Your task to perform on an android device: check android version Image 0: 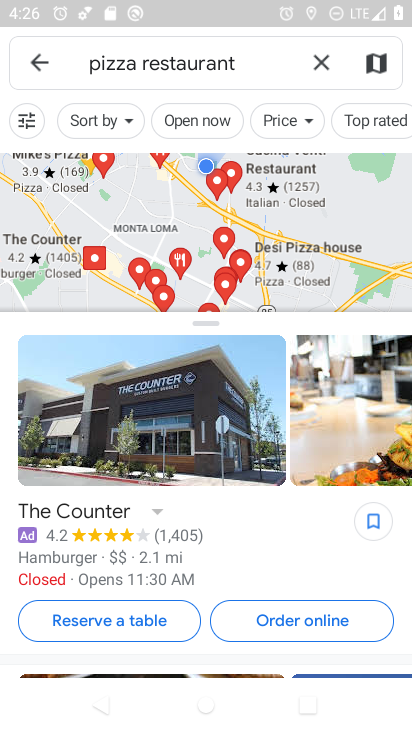
Step 0: press home button
Your task to perform on an android device: check android version Image 1: 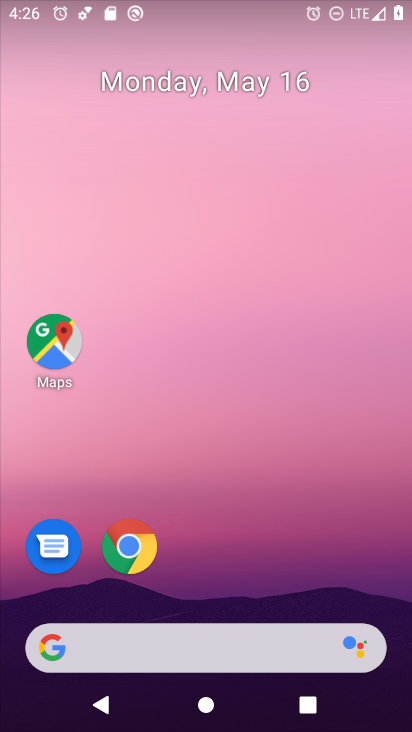
Step 1: drag from (334, 593) to (338, 104)
Your task to perform on an android device: check android version Image 2: 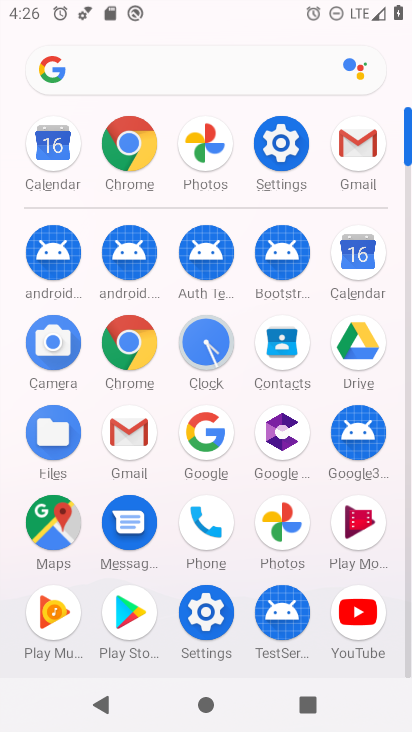
Step 2: click (196, 622)
Your task to perform on an android device: check android version Image 3: 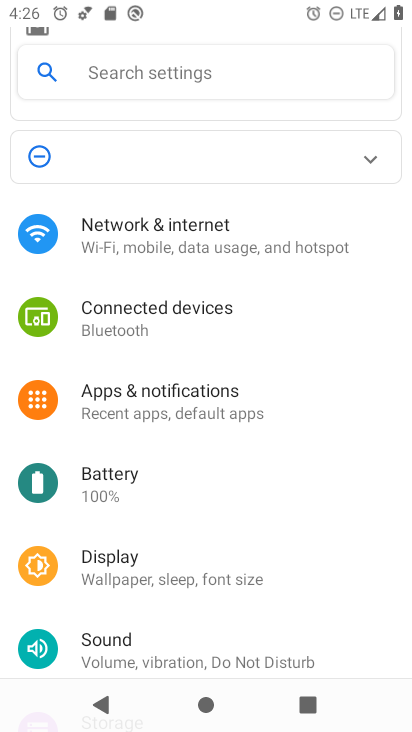
Step 3: drag from (328, 549) to (345, 362)
Your task to perform on an android device: check android version Image 4: 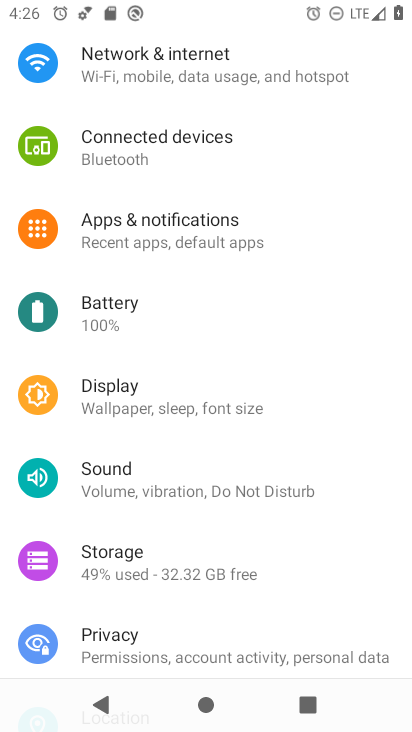
Step 4: drag from (324, 594) to (325, 417)
Your task to perform on an android device: check android version Image 5: 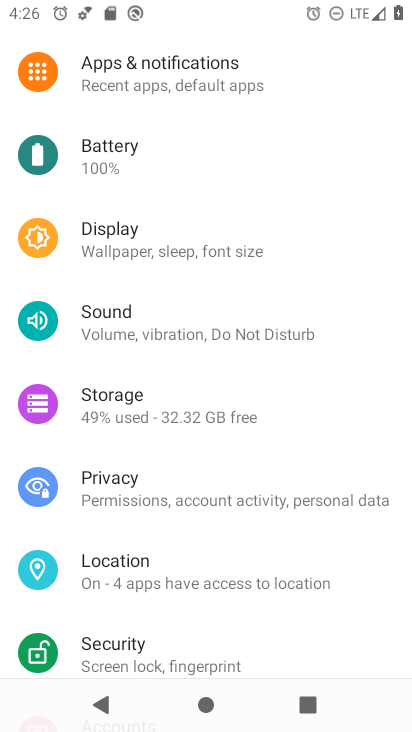
Step 5: drag from (323, 634) to (333, 406)
Your task to perform on an android device: check android version Image 6: 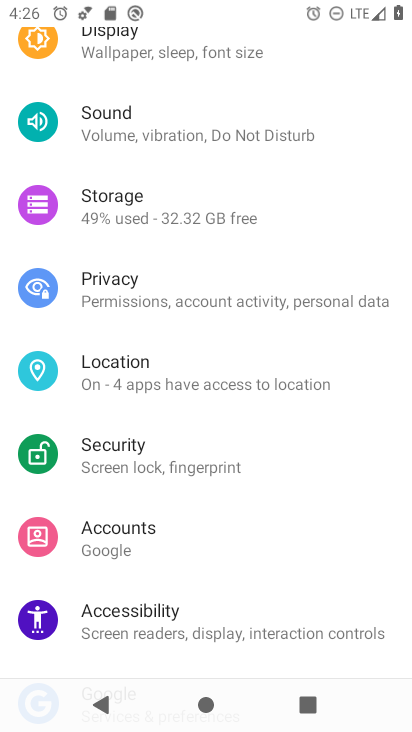
Step 6: drag from (292, 642) to (313, 427)
Your task to perform on an android device: check android version Image 7: 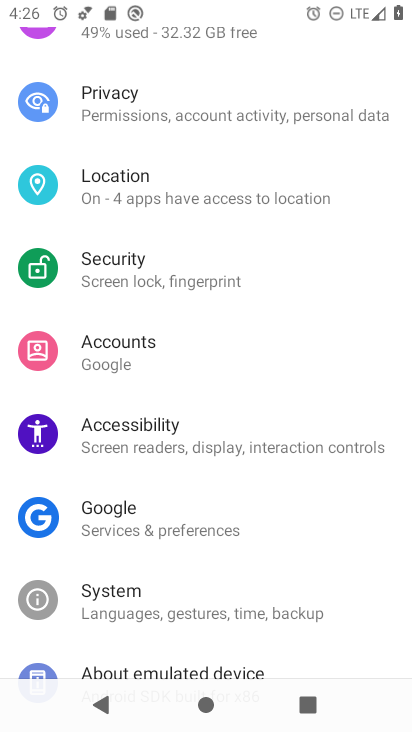
Step 7: drag from (309, 640) to (332, 494)
Your task to perform on an android device: check android version Image 8: 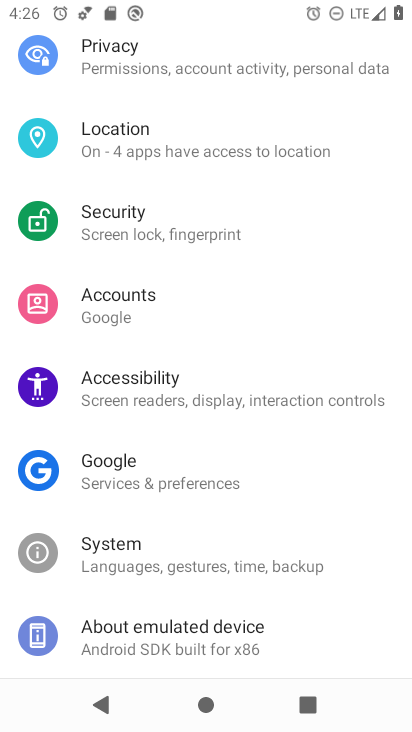
Step 8: click (289, 562)
Your task to perform on an android device: check android version Image 9: 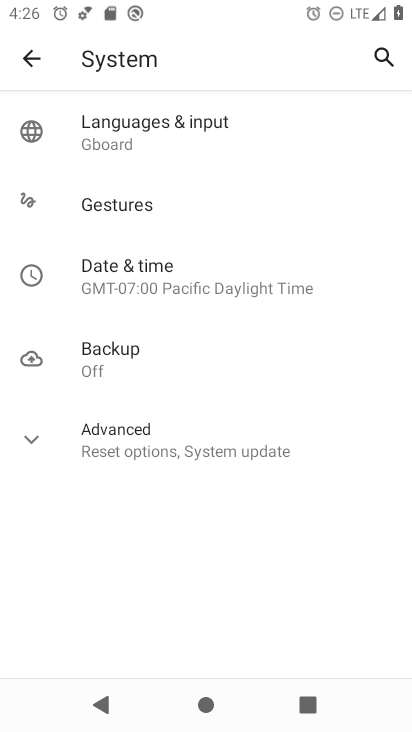
Step 9: click (215, 448)
Your task to perform on an android device: check android version Image 10: 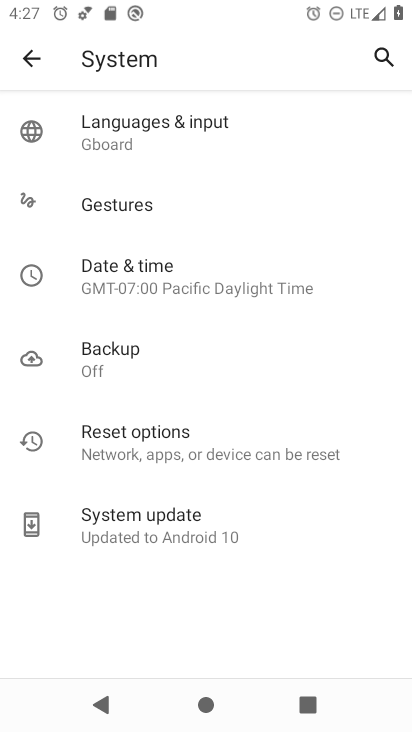
Step 10: click (194, 538)
Your task to perform on an android device: check android version Image 11: 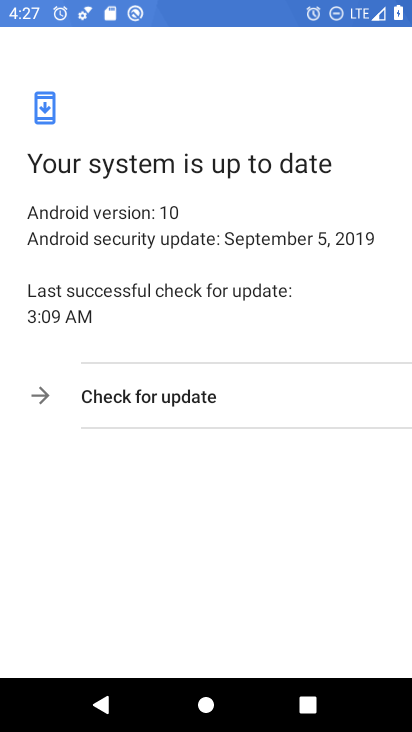
Step 11: task complete